Your task to perform on an android device: turn on priority inbox in the gmail app Image 0: 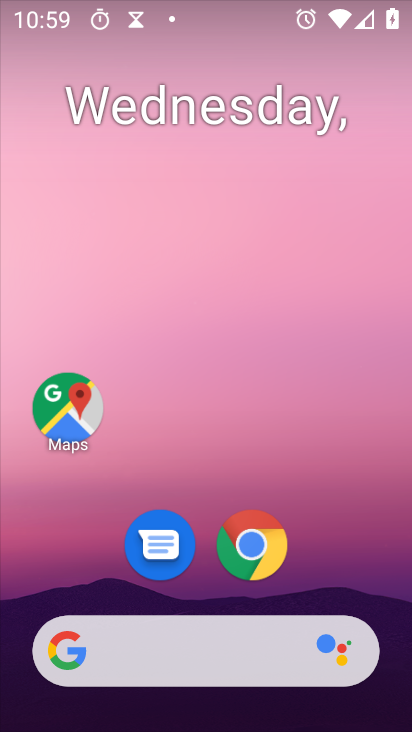
Step 0: drag from (205, 642) to (357, 119)
Your task to perform on an android device: turn on priority inbox in the gmail app Image 1: 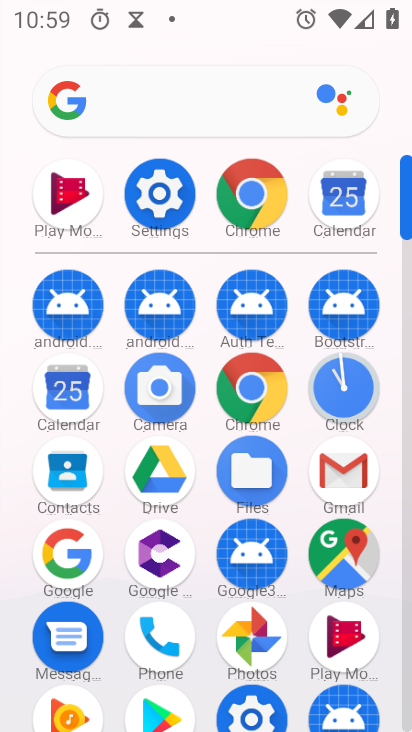
Step 1: click (340, 513)
Your task to perform on an android device: turn on priority inbox in the gmail app Image 2: 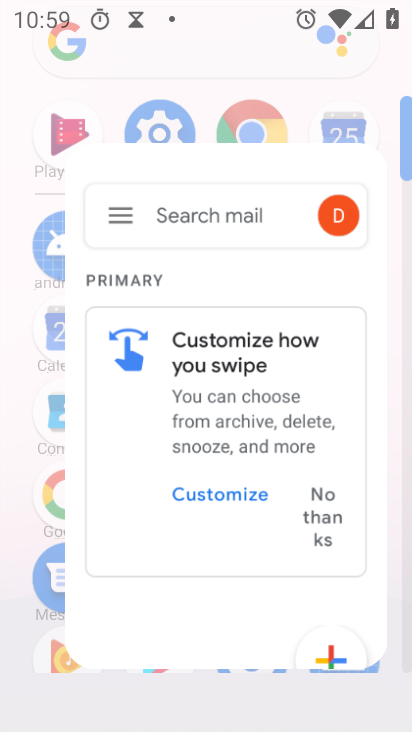
Step 2: click (342, 503)
Your task to perform on an android device: turn on priority inbox in the gmail app Image 3: 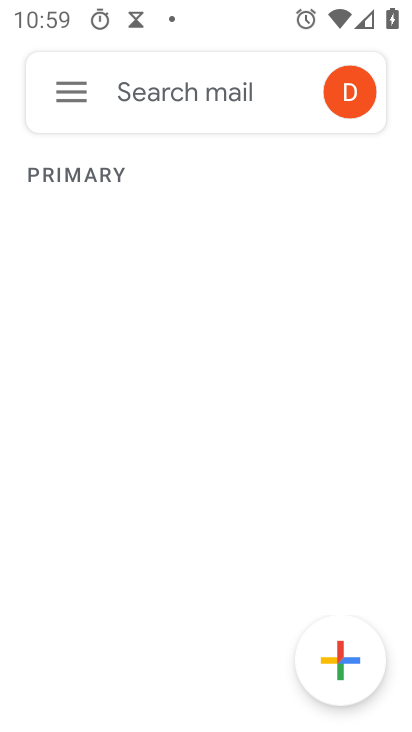
Step 3: click (71, 89)
Your task to perform on an android device: turn on priority inbox in the gmail app Image 4: 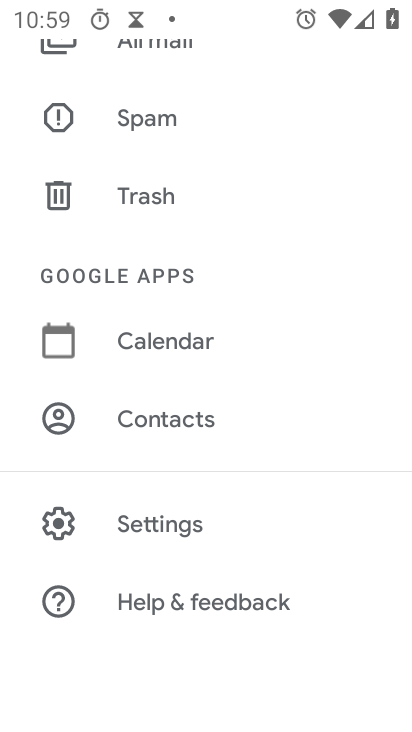
Step 4: click (182, 528)
Your task to perform on an android device: turn on priority inbox in the gmail app Image 5: 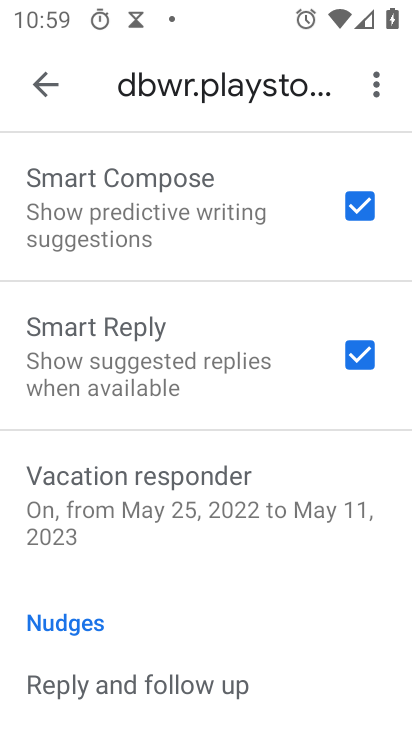
Step 5: drag from (277, 174) to (209, 631)
Your task to perform on an android device: turn on priority inbox in the gmail app Image 6: 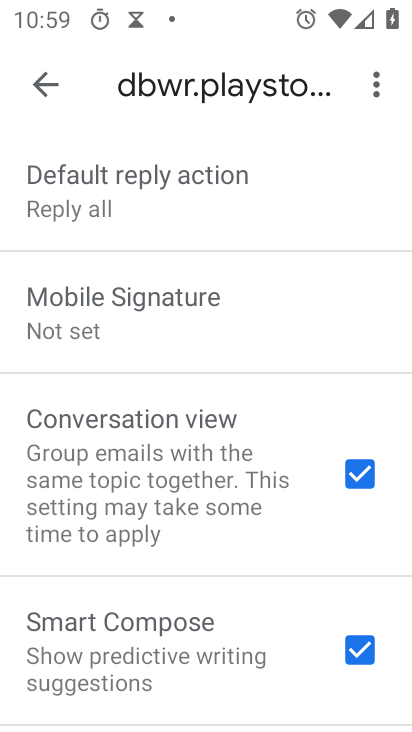
Step 6: drag from (317, 188) to (234, 643)
Your task to perform on an android device: turn on priority inbox in the gmail app Image 7: 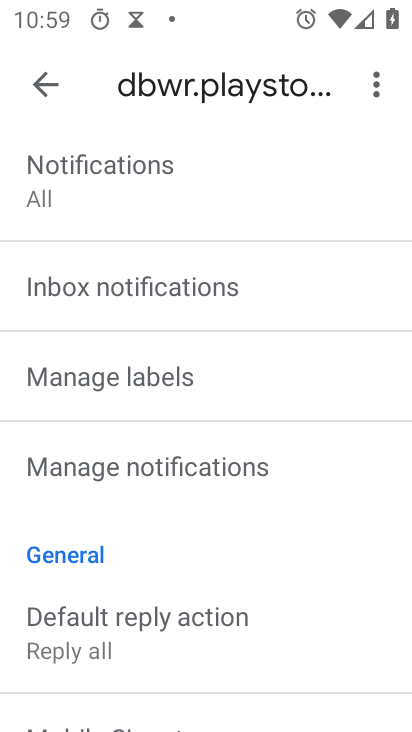
Step 7: drag from (285, 211) to (211, 654)
Your task to perform on an android device: turn on priority inbox in the gmail app Image 8: 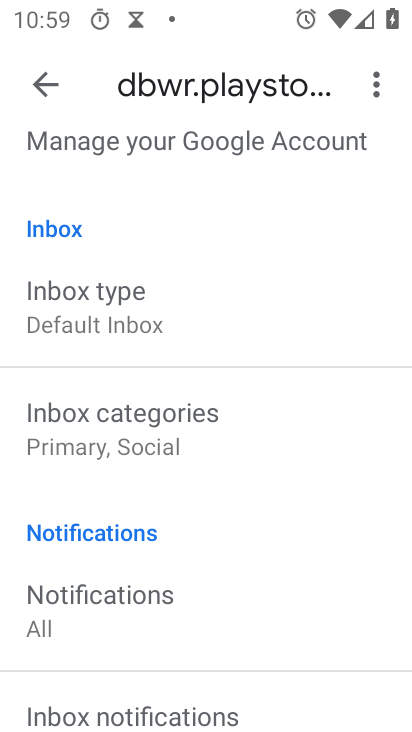
Step 8: click (108, 307)
Your task to perform on an android device: turn on priority inbox in the gmail app Image 9: 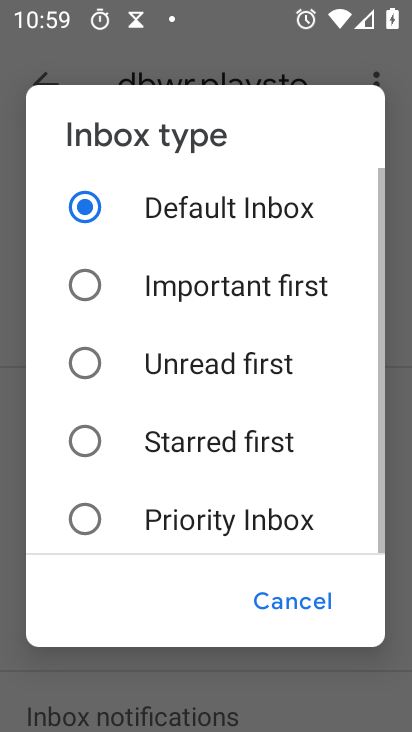
Step 9: click (84, 517)
Your task to perform on an android device: turn on priority inbox in the gmail app Image 10: 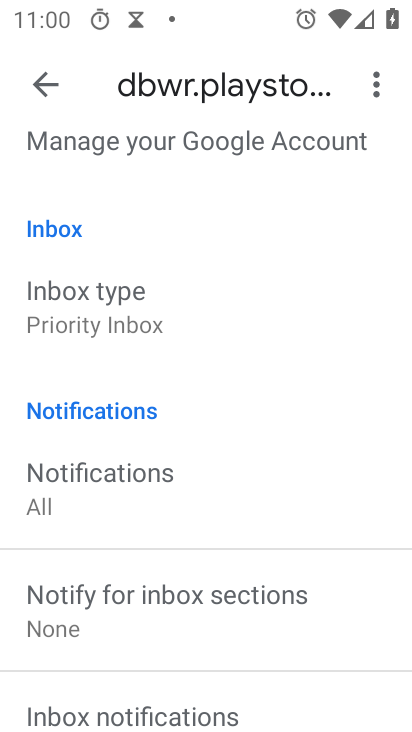
Step 10: task complete